Your task to perform on an android device: set the timer Image 0: 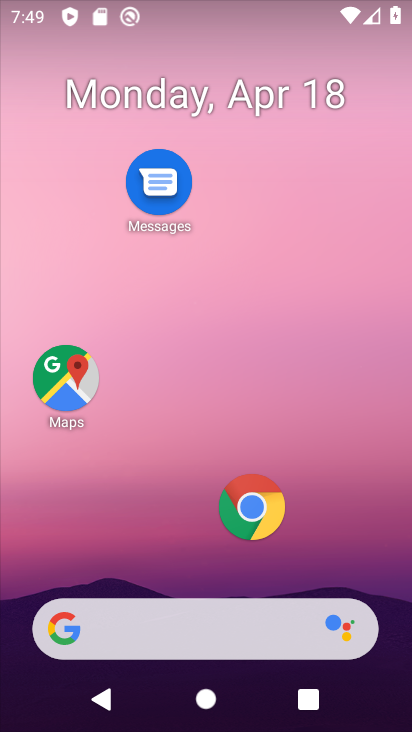
Step 0: drag from (193, 596) to (205, 166)
Your task to perform on an android device: set the timer Image 1: 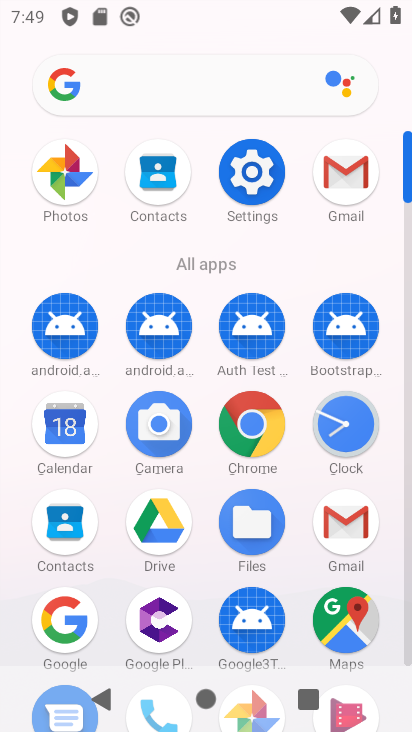
Step 1: click (345, 430)
Your task to perform on an android device: set the timer Image 2: 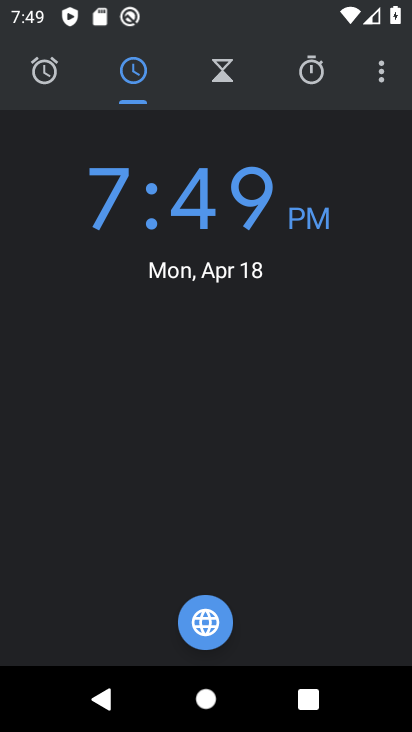
Step 2: click (313, 78)
Your task to perform on an android device: set the timer Image 3: 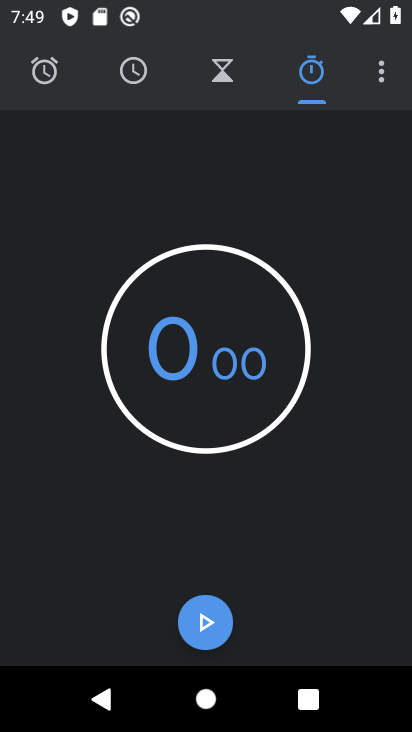
Step 3: click (216, 71)
Your task to perform on an android device: set the timer Image 4: 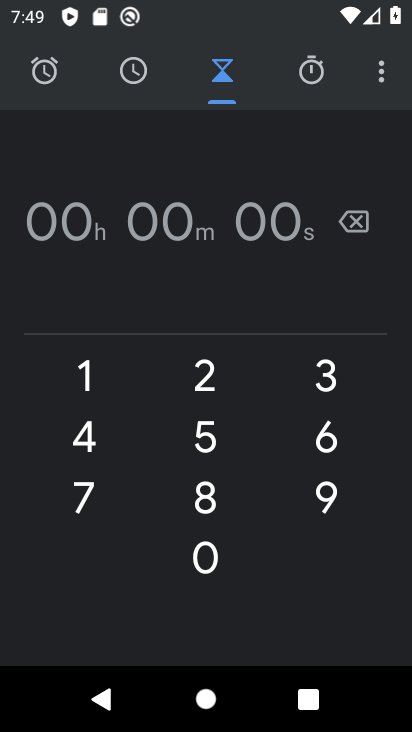
Step 4: click (198, 564)
Your task to perform on an android device: set the timer Image 5: 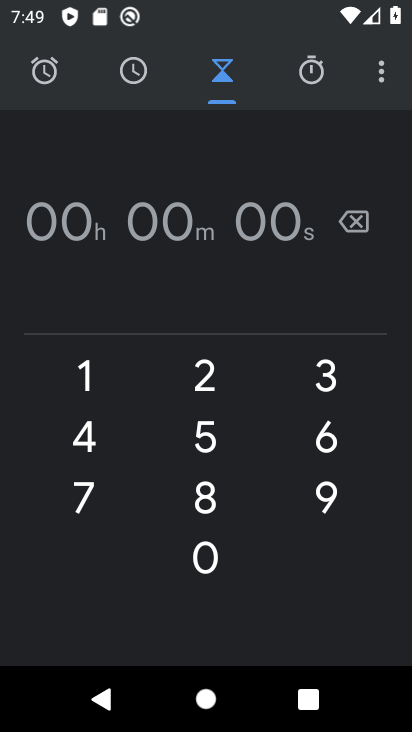
Step 5: click (197, 493)
Your task to perform on an android device: set the timer Image 6: 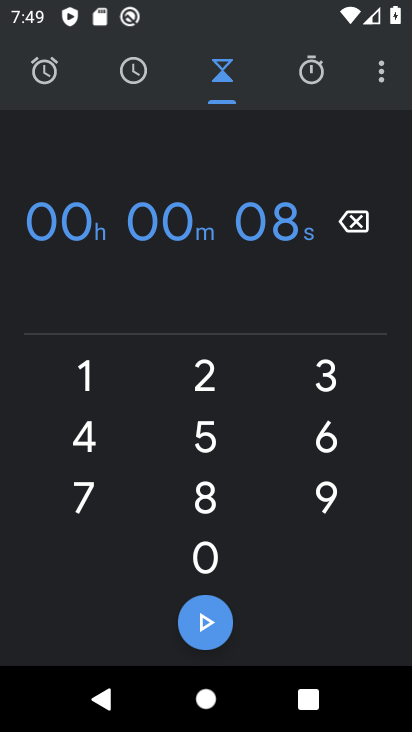
Step 6: click (356, 223)
Your task to perform on an android device: set the timer Image 7: 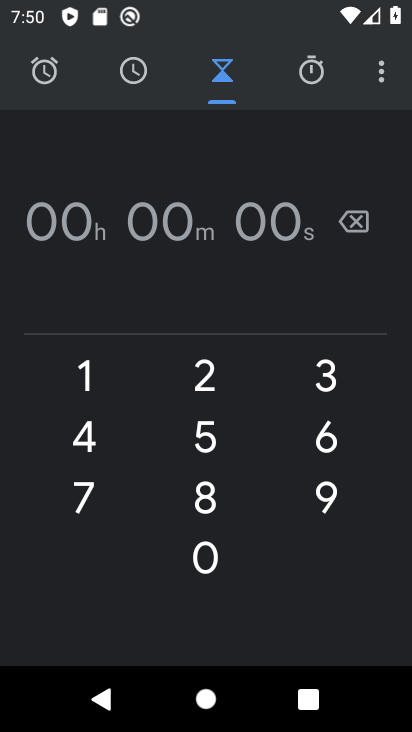
Step 7: click (206, 560)
Your task to perform on an android device: set the timer Image 8: 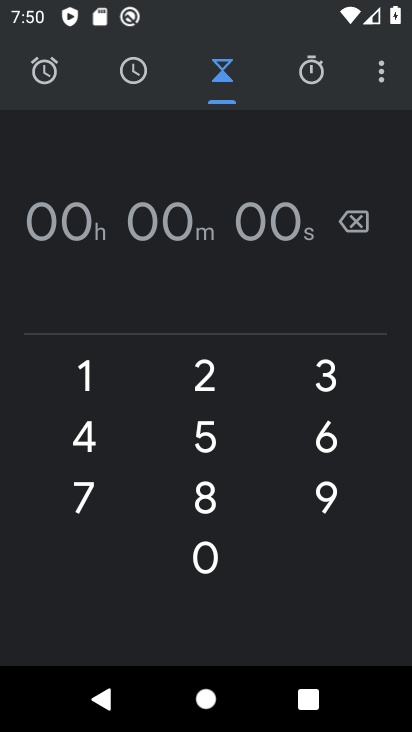
Step 8: click (206, 560)
Your task to perform on an android device: set the timer Image 9: 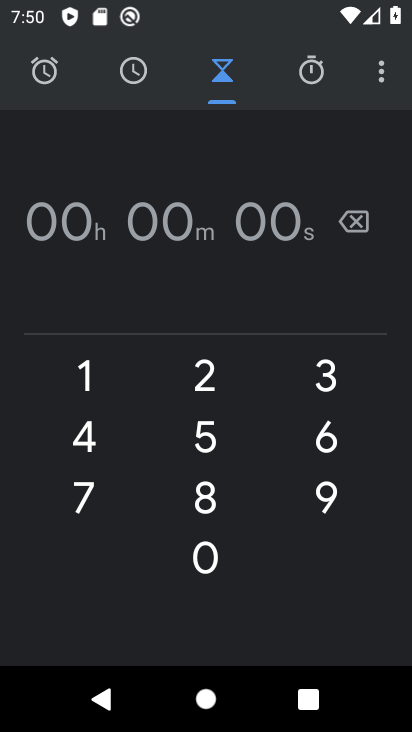
Step 9: click (204, 556)
Your task to perform on an android device: set the timer Image 10: 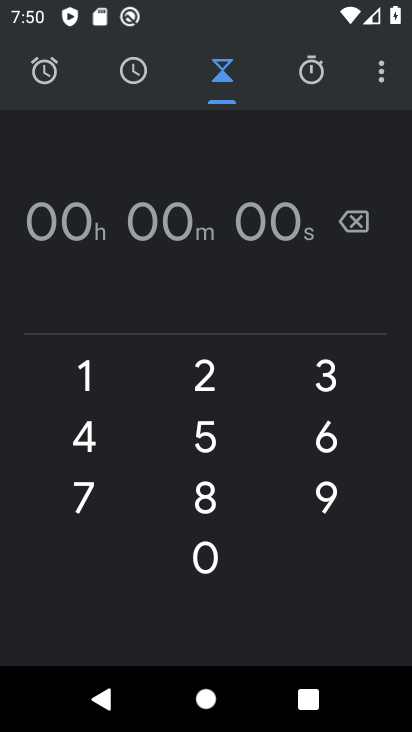
Step 10: click (210, 560)
Your task to perform on an android device: set the timer Image 11: 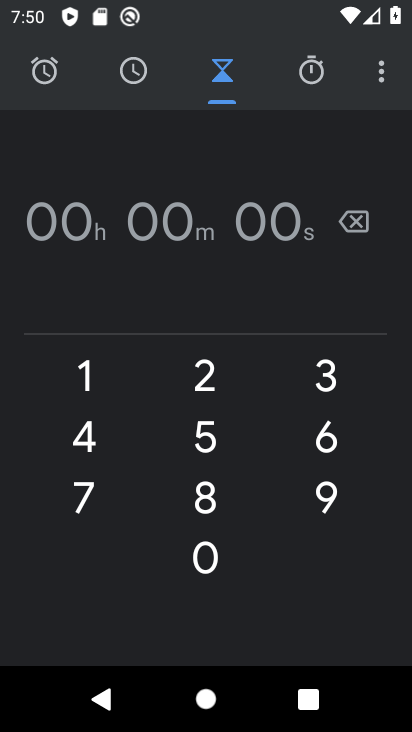
Step 11: click (210, 560)
Your task to perform on an android device: set the timer Image 12: 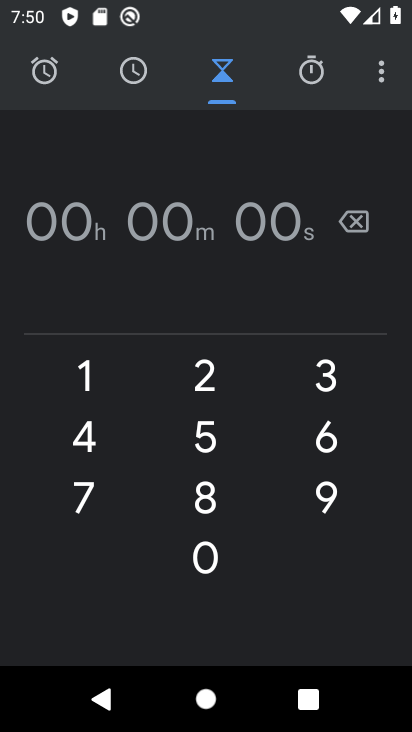
Step 12: click (89, 382)
Your task to perform on an android device: set the timer Image 13: 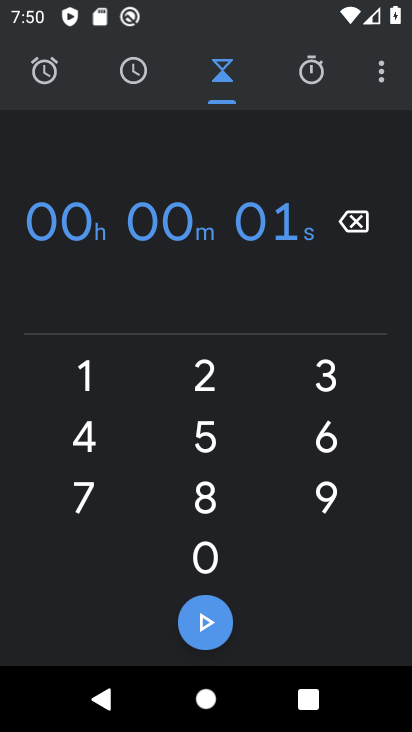
Step 13: click (196, 564)
Your task to perform on an android device: set the timer Image 14: 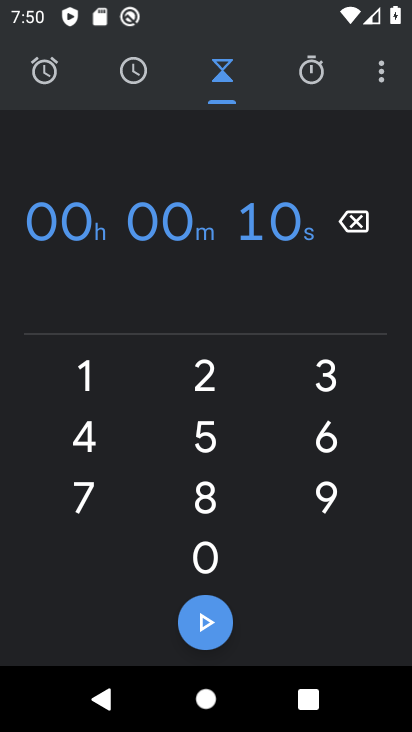
Step 14: click (200, 376)
Your task to perform on an android device: set the timer Image 15: 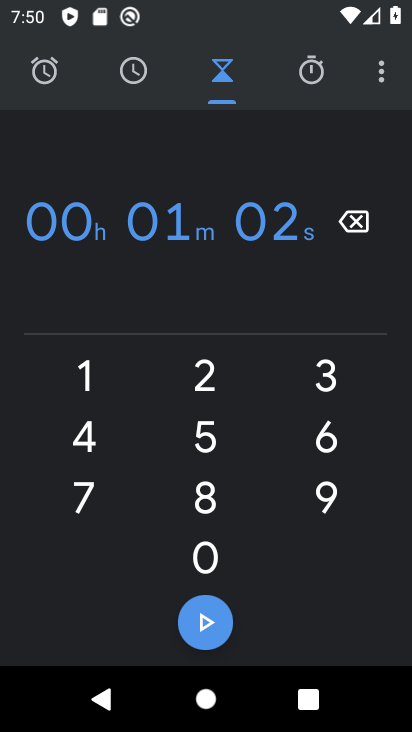
Step 15: click (212, 561)
Your task to perform on an android device: set the timer Image 16: 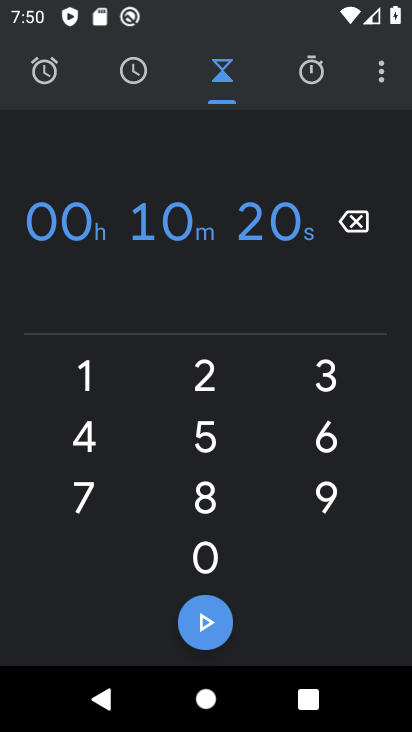
Step 16: click (212, 561)
Your task to perform on an android device: set the timer Image 17: 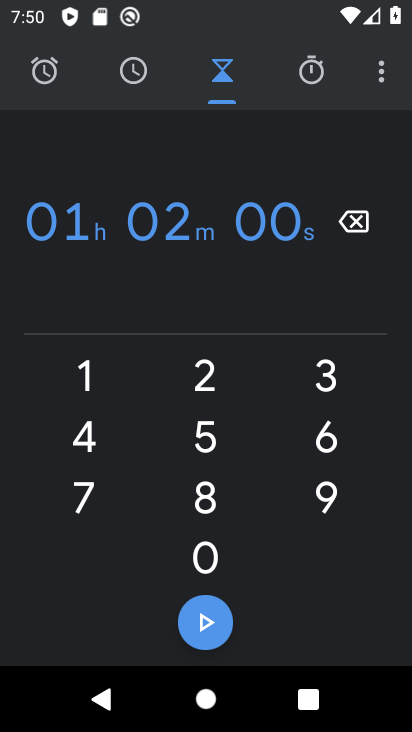
Step 17: click (214, 628)
Your task to perform on an android device: set the timer Image 18: 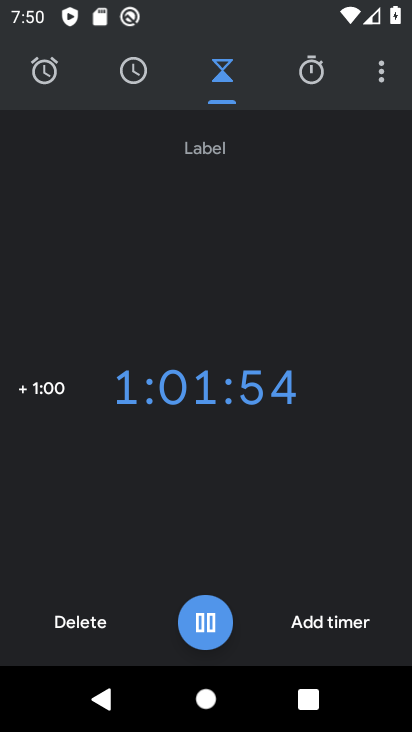
Step 18: task complete